Your task to perform on an android device: Set an alarm for 9am Image 0: 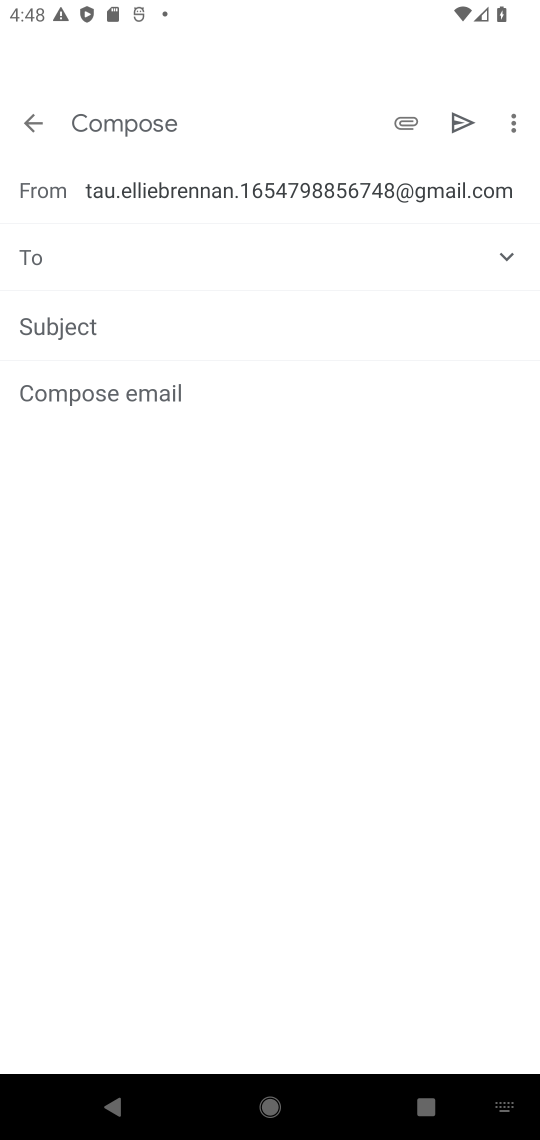
Step 0: press home button
Your task to perform on an android device: Set an alarm for 9am Image 1: 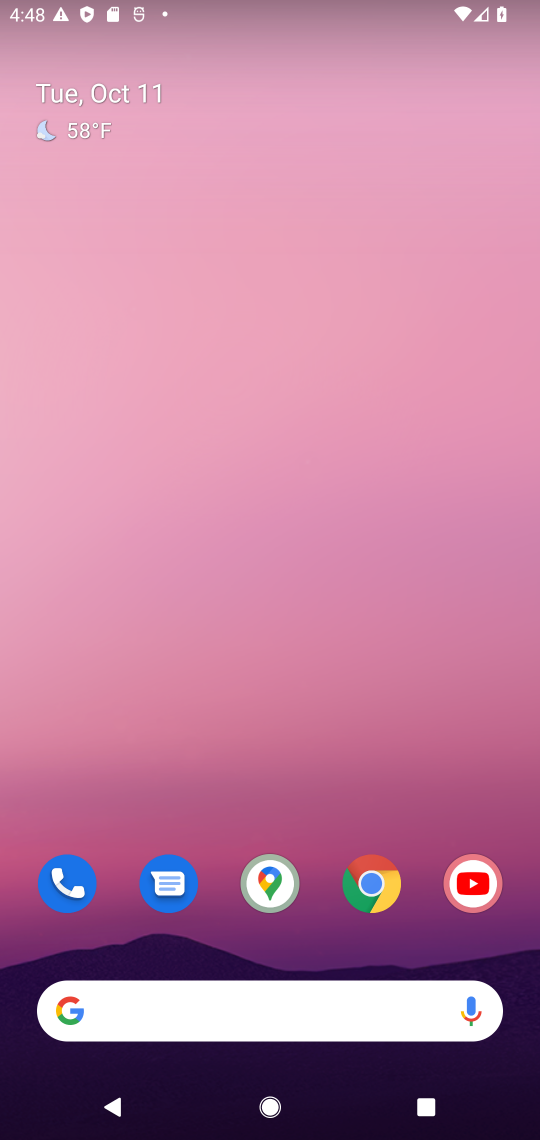
Step 1: drag from (332, 949) to (408, 66)
Your task to perform on an android device: Set an alarm for 9am Image 2: 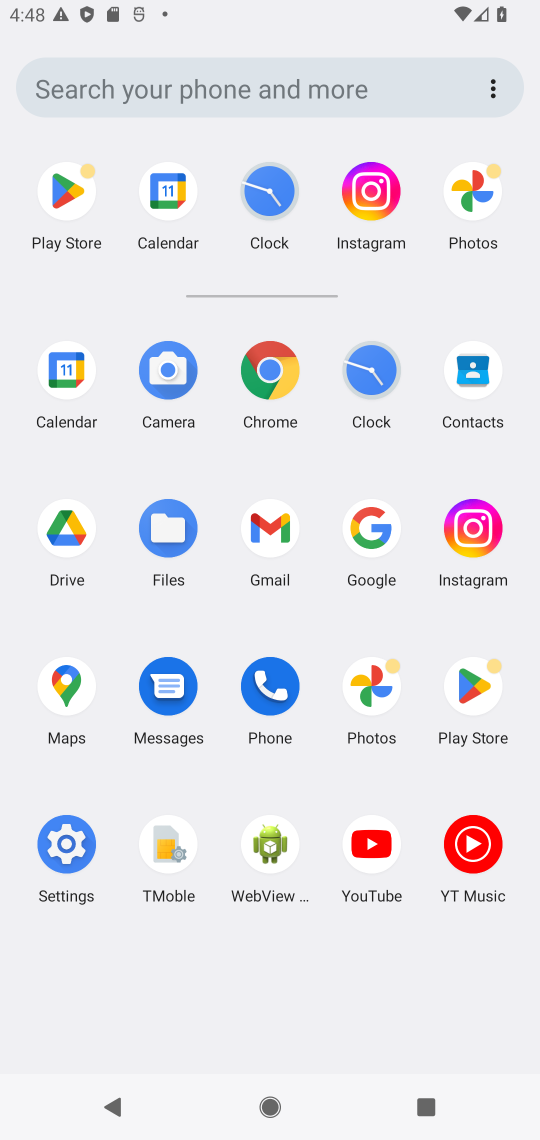
Step 2: click (368, 363)
Your task to perform on an android device: Set an alarm for 9am Image 3: 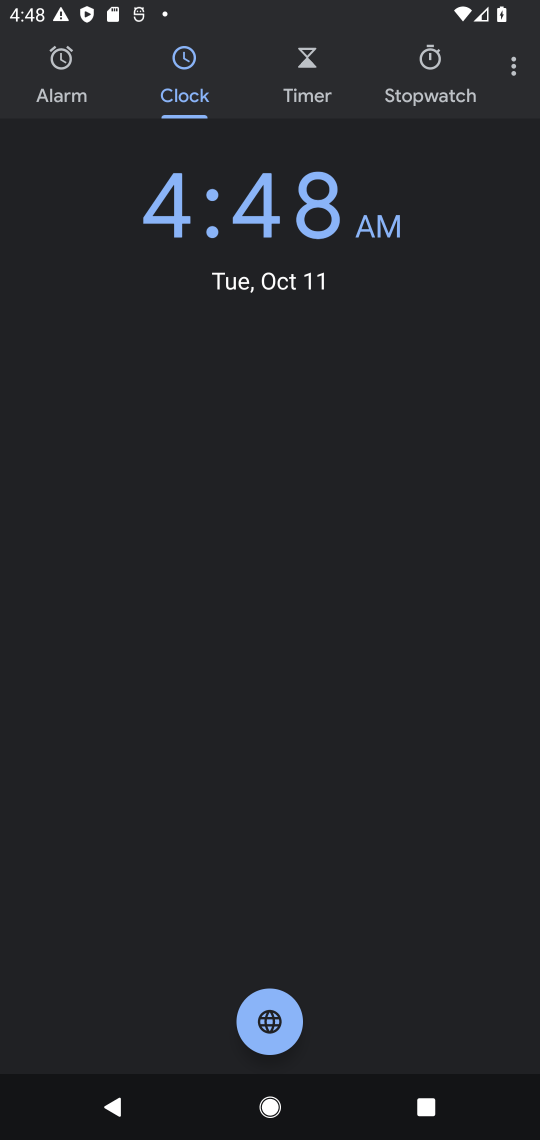
Step 3: click (78, 71)
Your task to perform on an android device: Set an alarm for 9am Image 4: 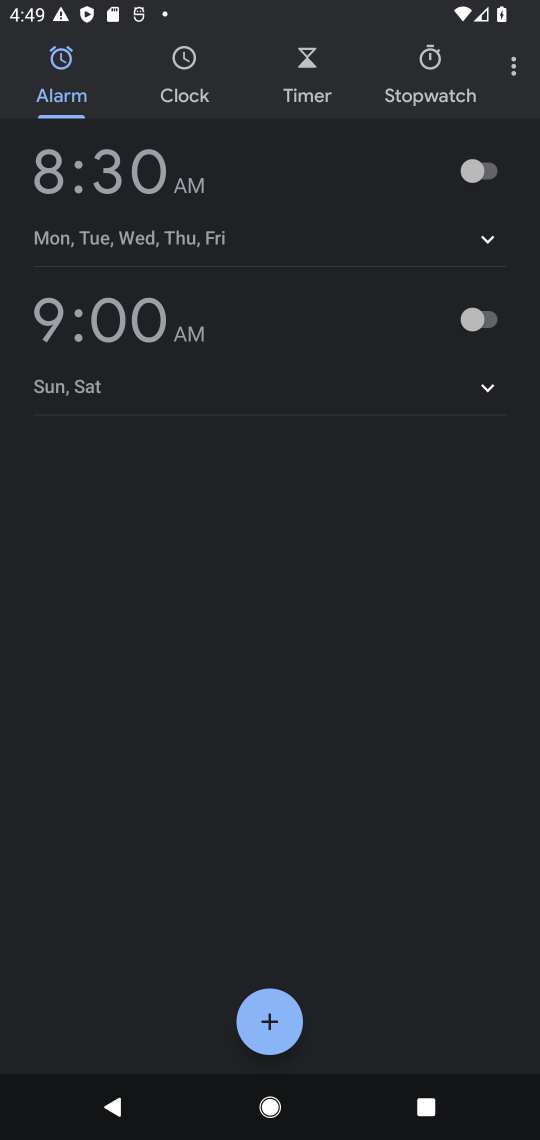
Step 4: click (474, 338)
Your task to perform on an android device: Set an alarm for 9am Image 5: 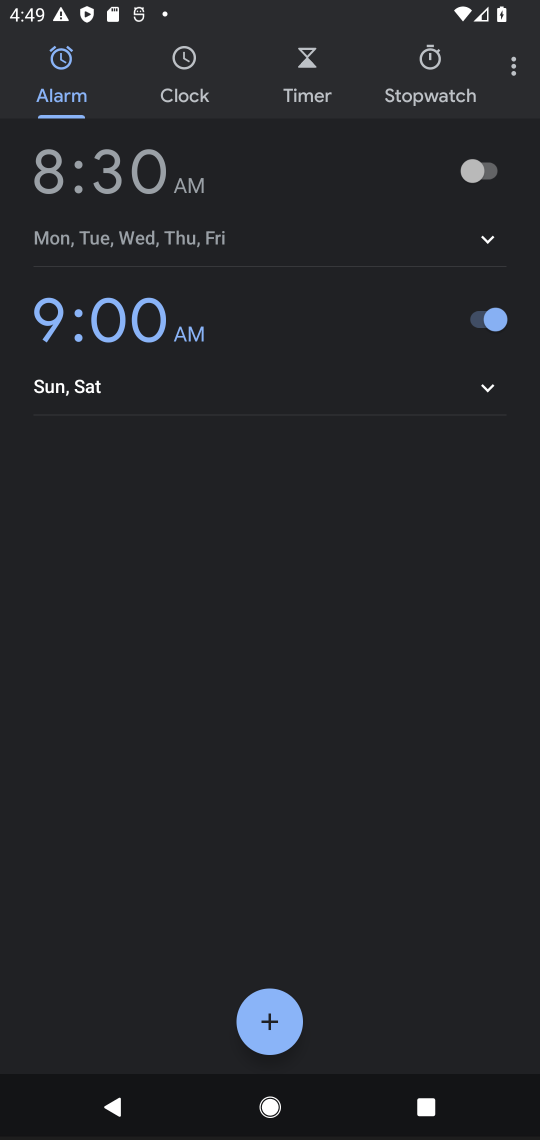
Step 5: task complete